Your task to perform on an android device: Go to Google maps Image 0: 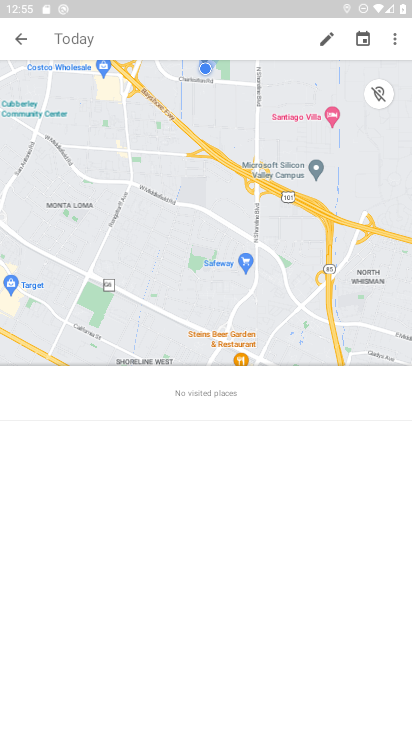
Step 0: task complete